Your task to perform on an android device: Open the stopwatch Image 0: 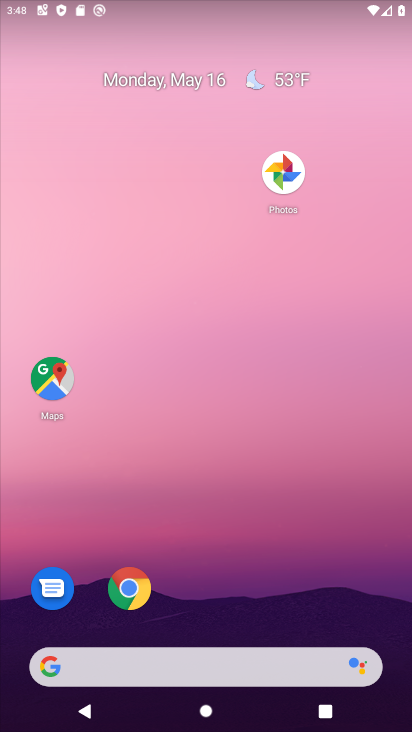
Step 0: drag from (178, 634) to (408, 265)
Your task to perform on an android device: Open the stopwatch Image 1: 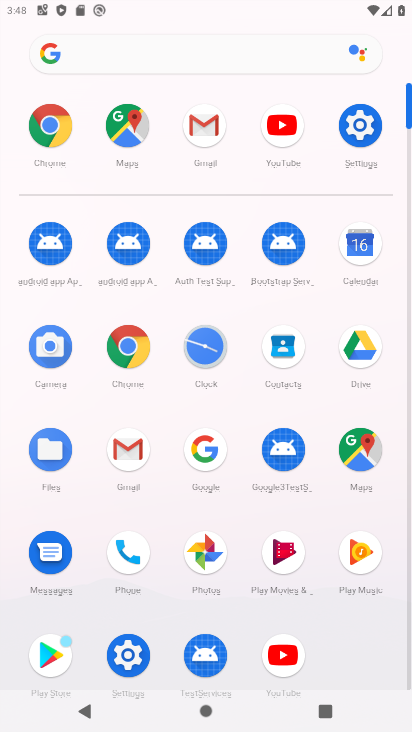
Step 1: click (203, 345)
Your task to perform on an android device: Open the stopwatch Image 2: 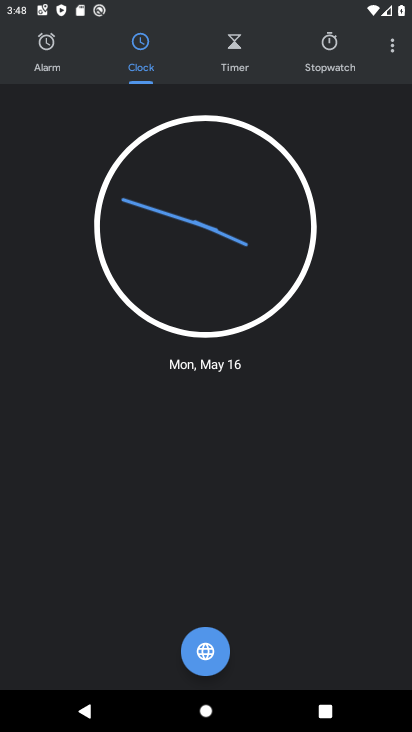
Step 2: click (344, 71)
Your task to perform on an android device: Open the stopwatch Image 3: 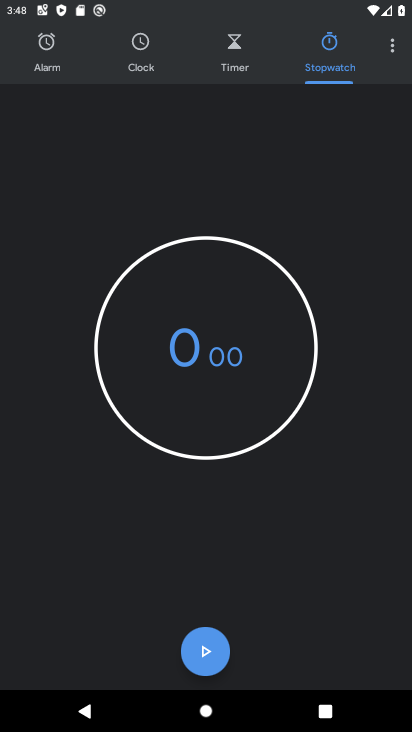
Step 3: task complete